Your task to perform on an android device: turn on airplane mode Image 0: 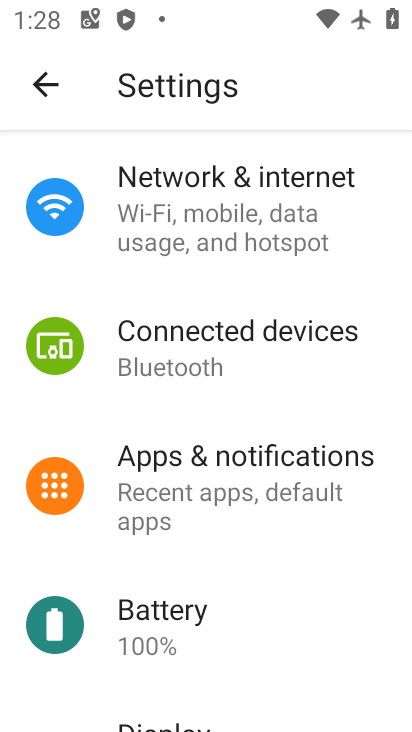
Step 0: click (148, 179)
Your task to perform on an android device: turn on airplane mode Image 1: 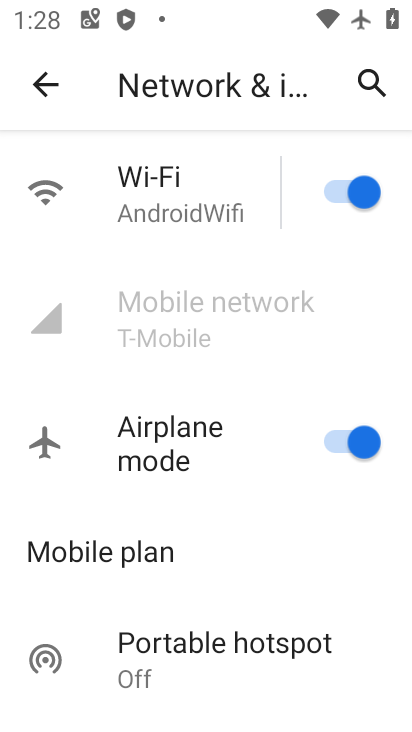
Step 1: task complete